Your task to perform on an android device: search for starred emails in the gmail app Image 0: 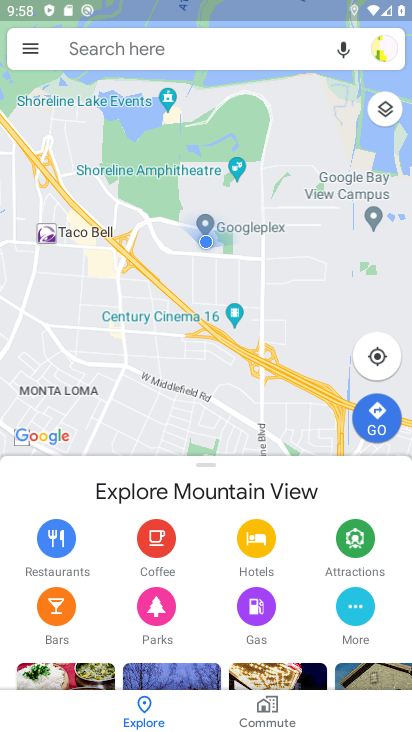
Step 0: press home button
Your task to perform on an android device: search for starred emails in the gmail app Image 1: 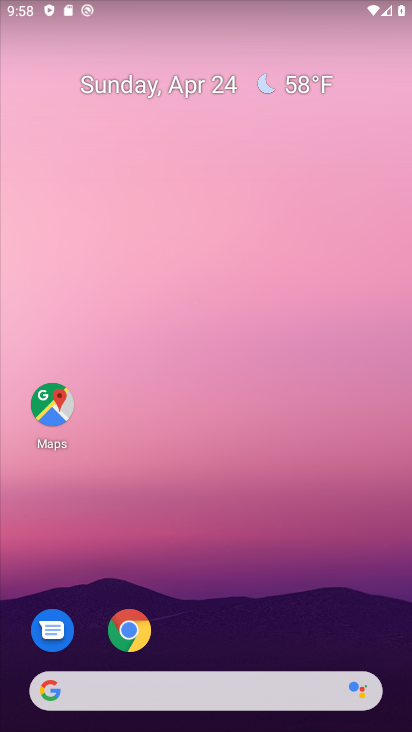
Step 1: drag from (209, 600) to (205, 46)
Your task to perform on an android device: search for starred emails in the gmail app Image 2: 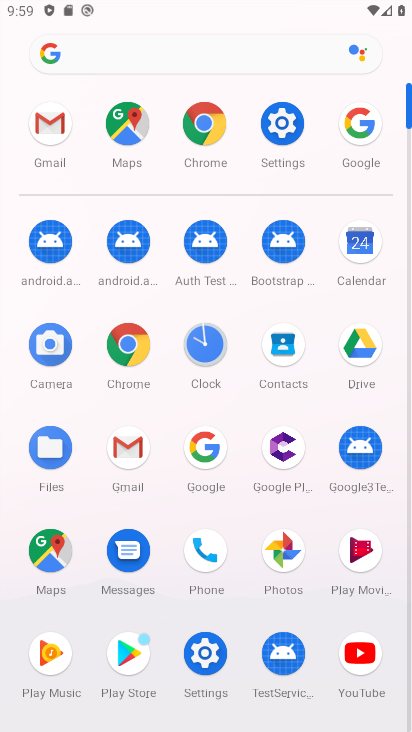
Step 2: click (124, 467)
Your task to perform on an android device: search for starred emails in the gmail app Image 3: 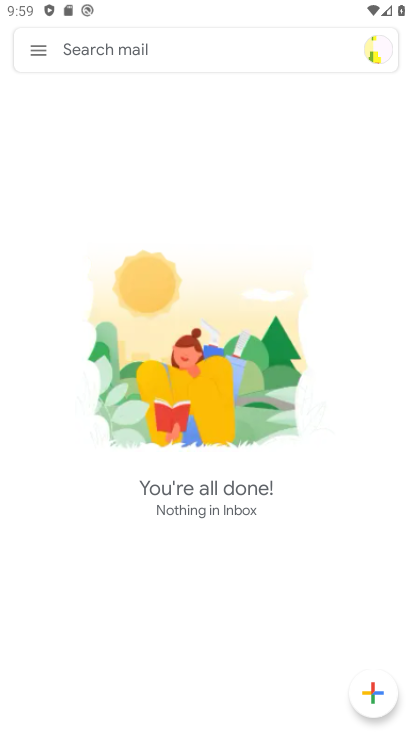
Step 3: click (40, 56)
Your task to perform on an android device: search for starred emails in the gmail app Image 4: 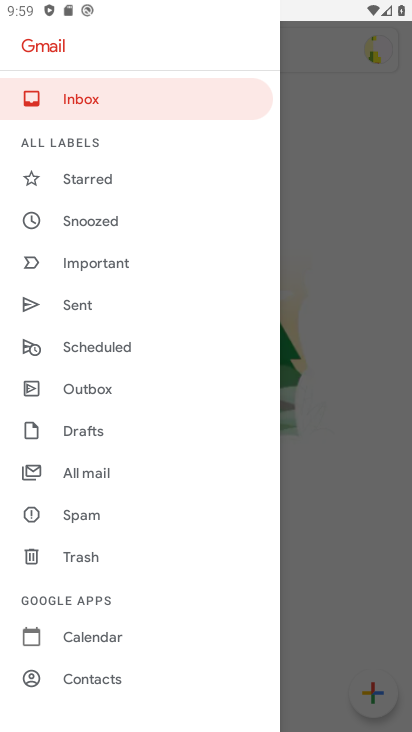
Step 4: click (115, 174)
Your task to perform on an android device: search for starred emails in the gmail app Image 5: 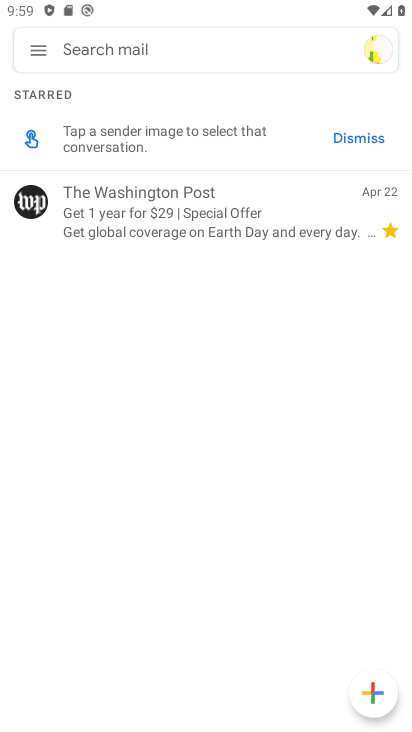
Step 5: task complete